Your task to perform on an android device: turn on data saver in the chrome app Image 0: 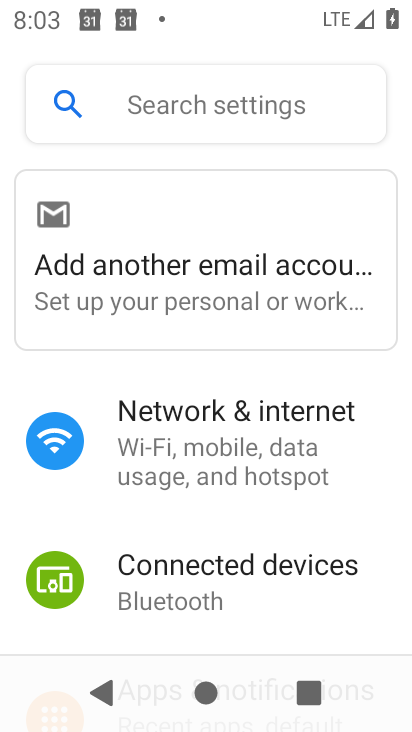
Step 0: press home button
Your task to perform on an android device: turn on data saver in the chrome app Image 1: 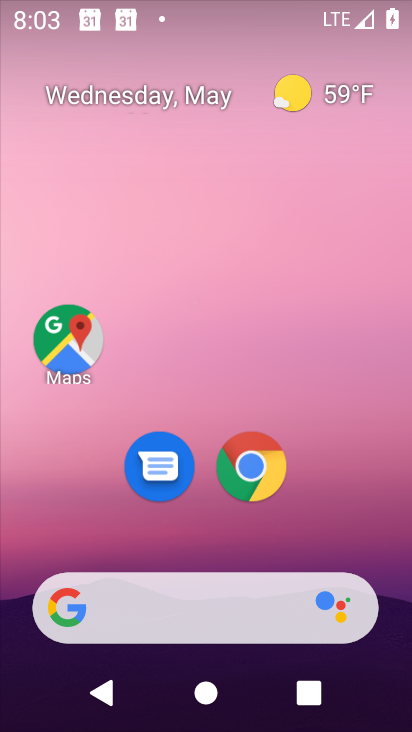
Step 1: drag from (330, 548) to (338, 284)
Your task to perform on an android device: turn on data saver in the chrome app Image 2: 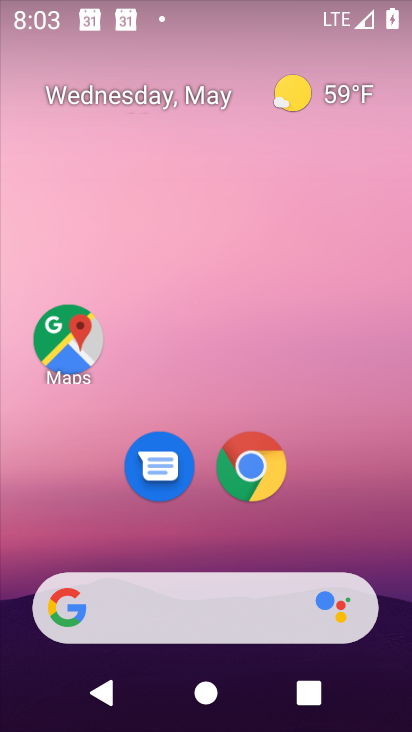
Step 2: drag from (267, 485) to (282, 238)
Your task to perform on an android device: turn on data saver in the chrome app Image 3: 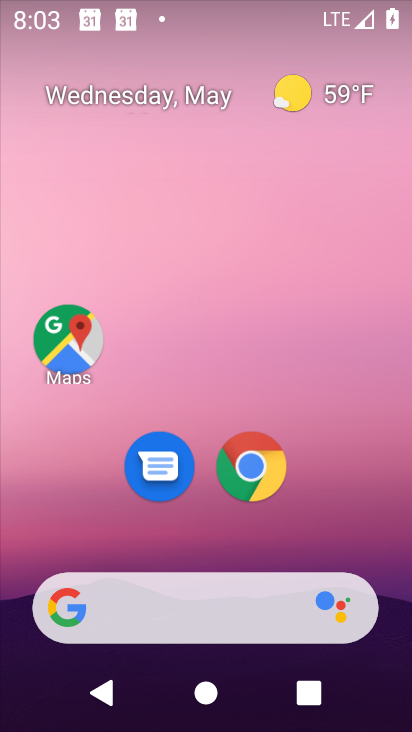
Step 3: drag from (198, 676) to (193, 228)
Your task to perform on an android device: turn on data saver in the chrome app Image 4: 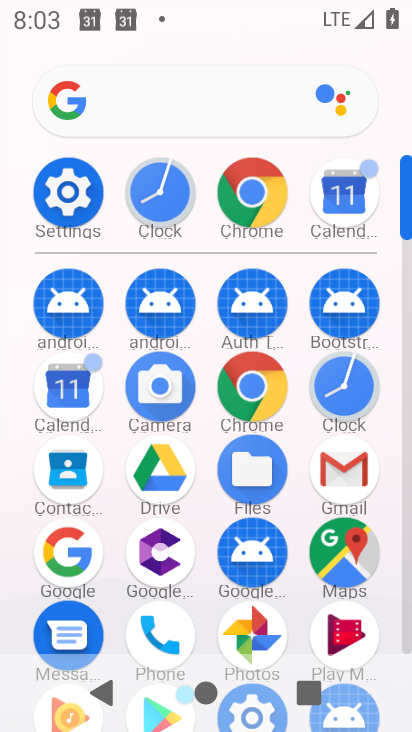
Step 4: click (238, 186)
Your task to perform on an android device: turn on data saver in the chrome app Image 5: 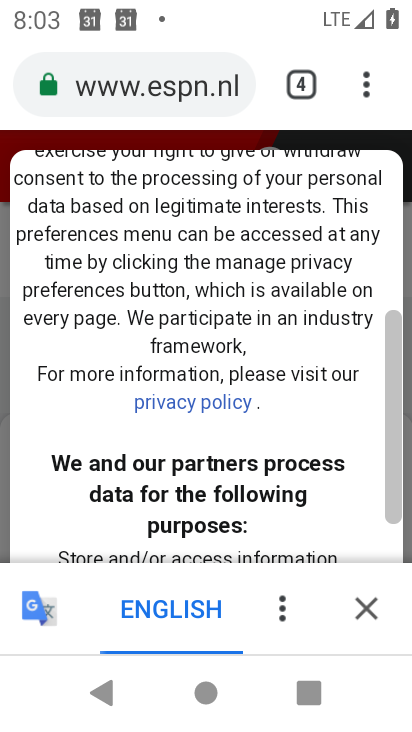
Step 5: click (351, 89)
Your task to perform on an android device: turn on data saver in the chrome app Image 6: 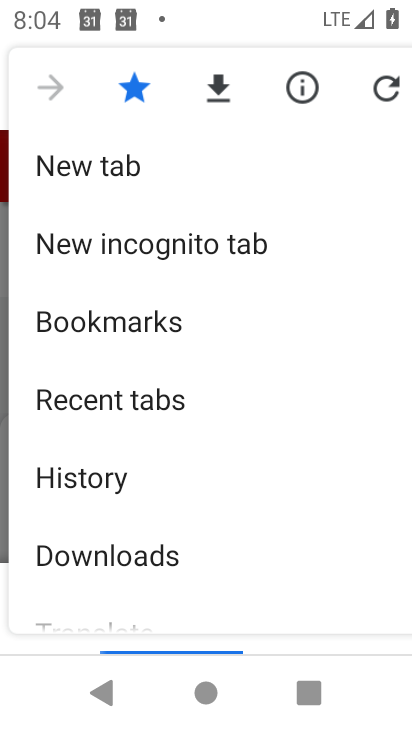
Step 6: drag from (265, 568) to (316, 193)
Your task to perform on an android device: turn on data saver in the chrome app Image 7: 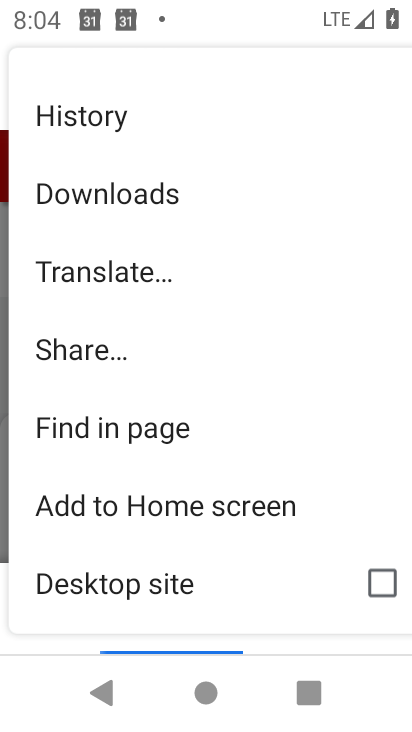
Step 7: drag from (201, 528) to (241, 97)
Your task to perform on an android device: turn on data saver in the chrome app Image 8: 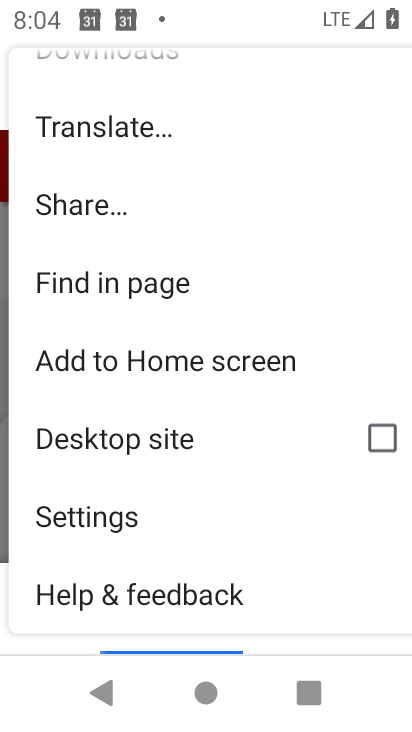
Step 8: click (125, 519)
Your task to perform on an android device: turn on data saver in the chrome app Image 9: 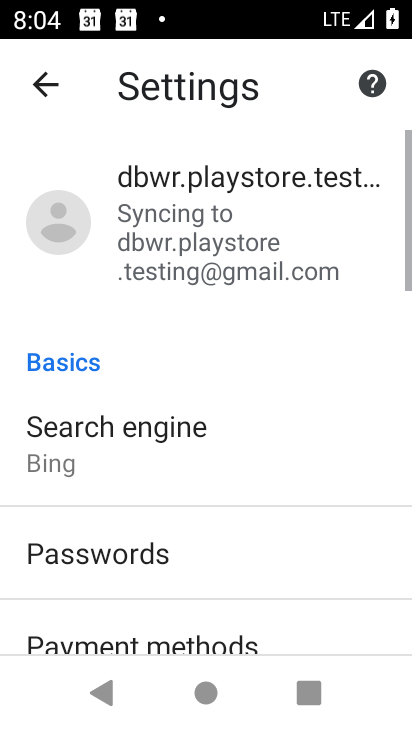
Step 9: drag from (221, 606) to (284, 150)
Your task to perform on an android device: turn on data saver in the chrome app Image 10: 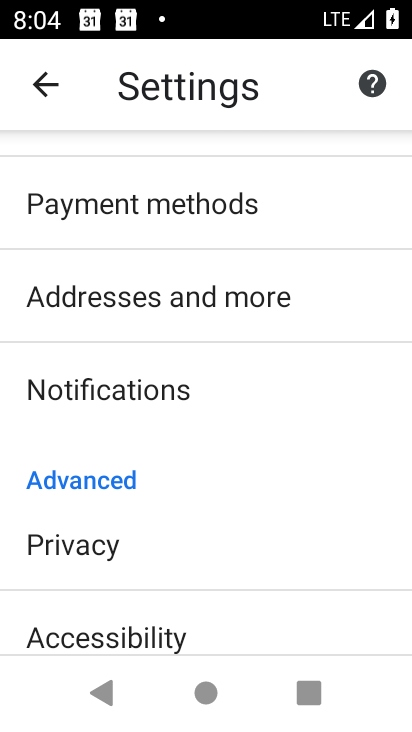
Step 10: drag from (171, 571) to (230, 157)
Your task to perform on an android device: turn on data saver in the chrome app Image 11: 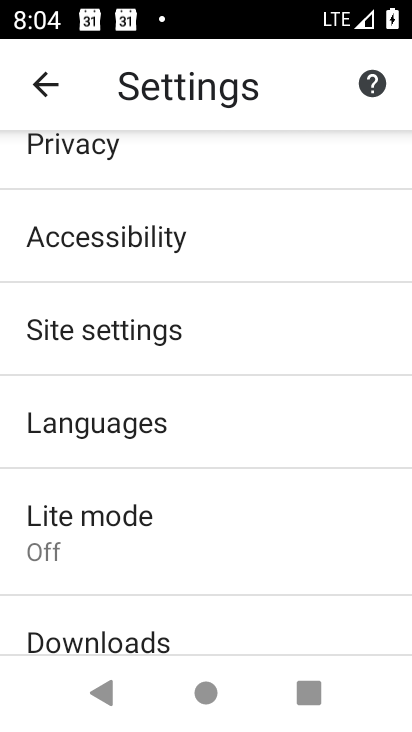
Step 11: click (181, 515)
Your task to perform on an android device: turn on data saver in the chrome app Image 12: 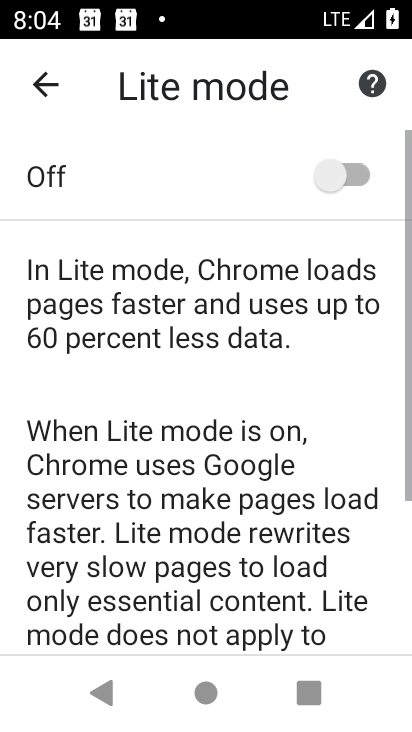
Step 12: click (348, 171)
Your task to perform on an android device: turn on data saver in the chrome app Image 13: 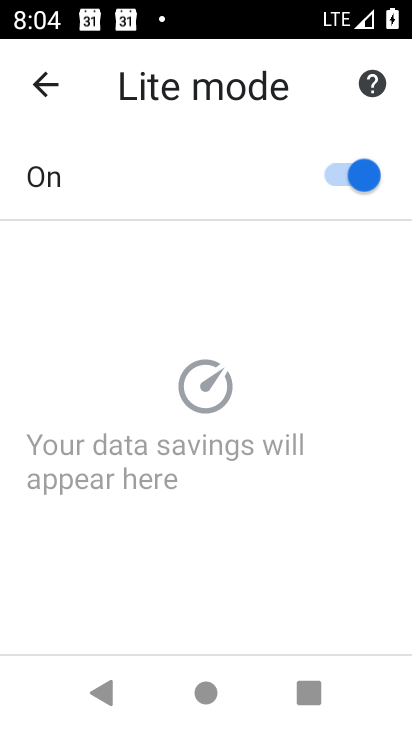
Step 13: task complete